Your task to perform on an android device: Go to Reddit.com Image 0: 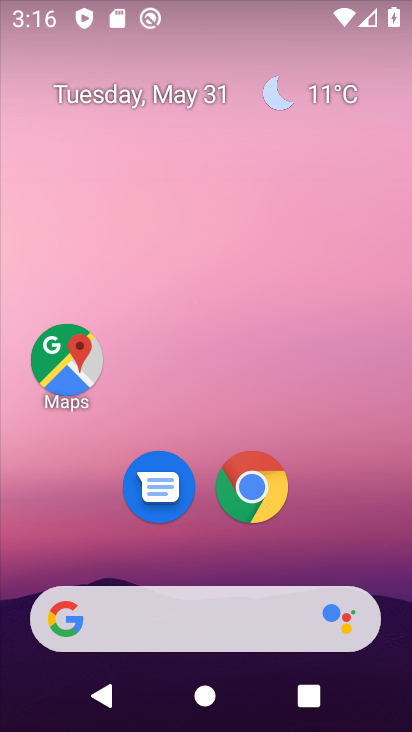
Step 0: click (254, 484)
Your task to perform on an android device: Go to Reddit.com Image 1: 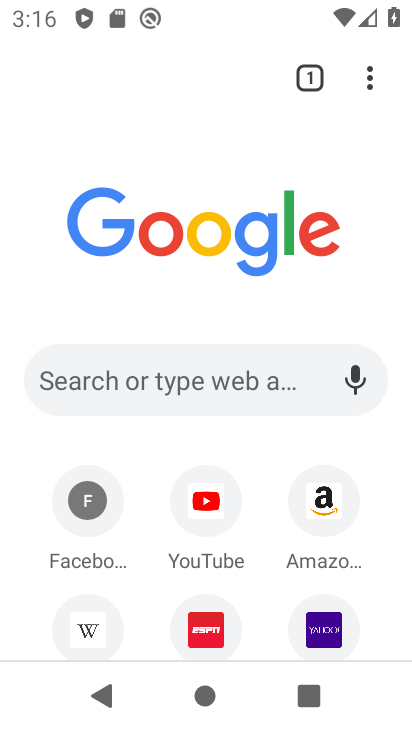
Step 1: click (154, 379)
Your task to perform on an android device: Go to Reddit.com Image 2: 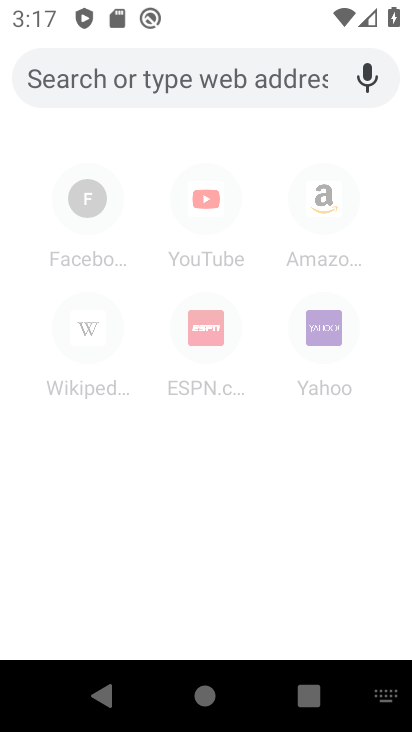
Step 2: type "Reddit.com"
Your task to perform on an android device: Go to Reddit.com Image 3: 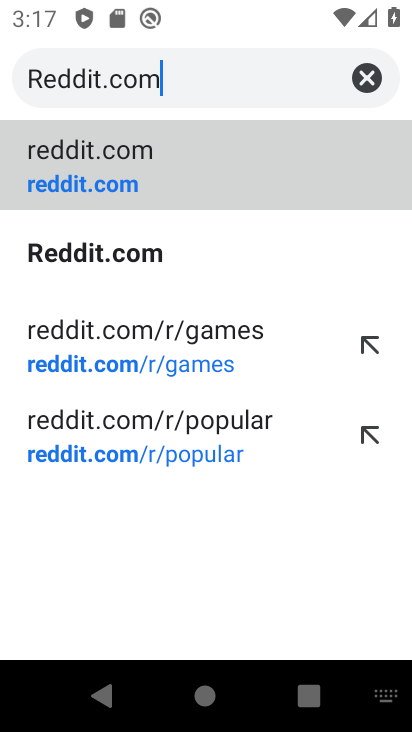
Step 3: click (147, 249)
Your task to perform on an android device: Go to Reddit.com Image 4: 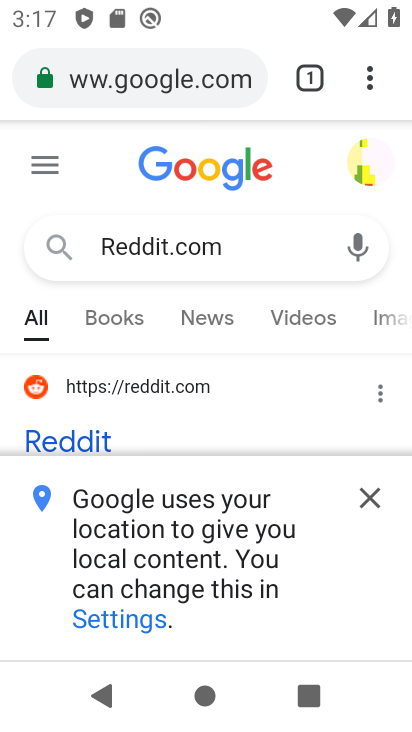
Step 4: click (376, 493)
Your task to perform on an android device: Go to Reddit.com Image 5: 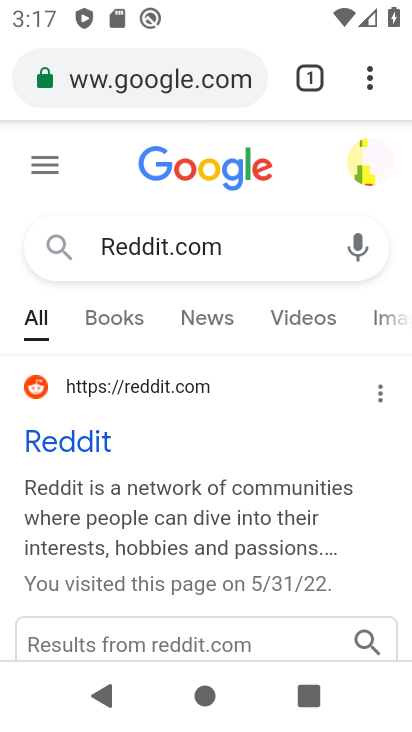
Step 5: click (69, 429)
Your task to perform on an android device: Go to Reddit.com Image 6: 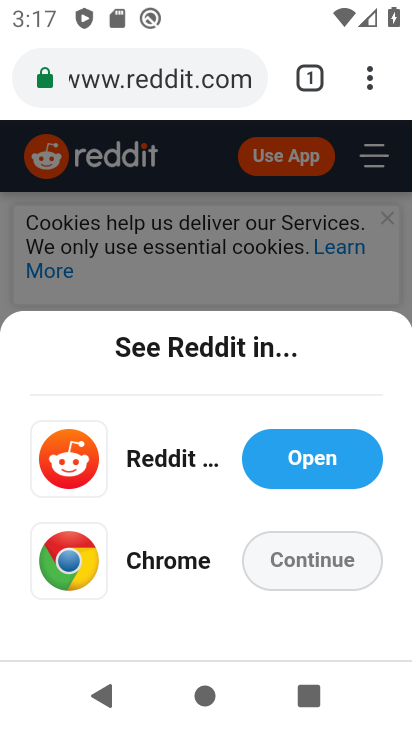
Step 6: click (303, 553)
Your task to perform on an android device: Go to Reddit.com Image 7: 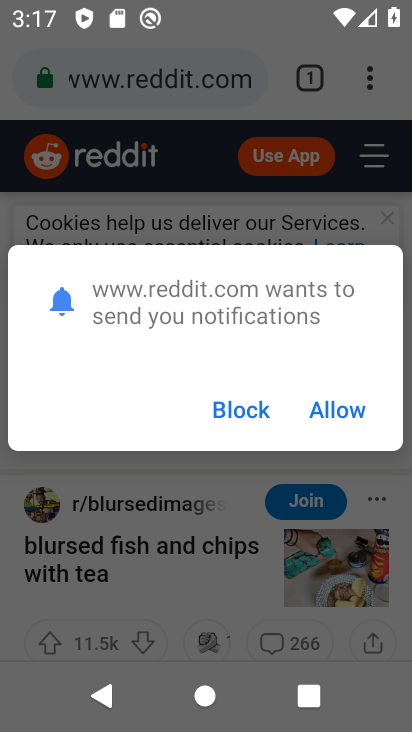
Step 7: click (332, 417)
Your task to perform on an android device: Go to Reddit.com Image 8: 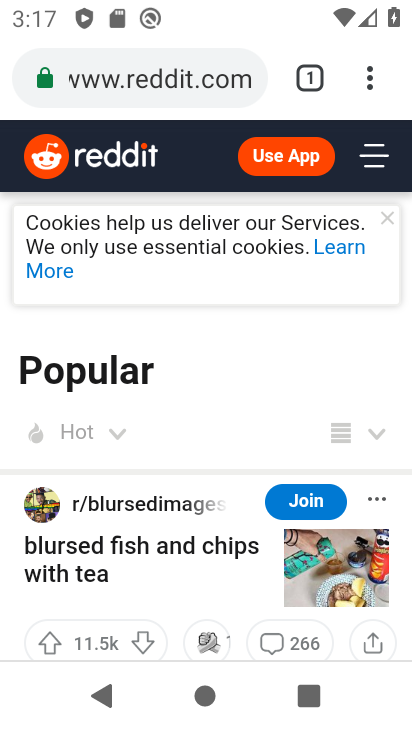
Step 8: task complete